Your task to perform on an android device: check android version Image 0: 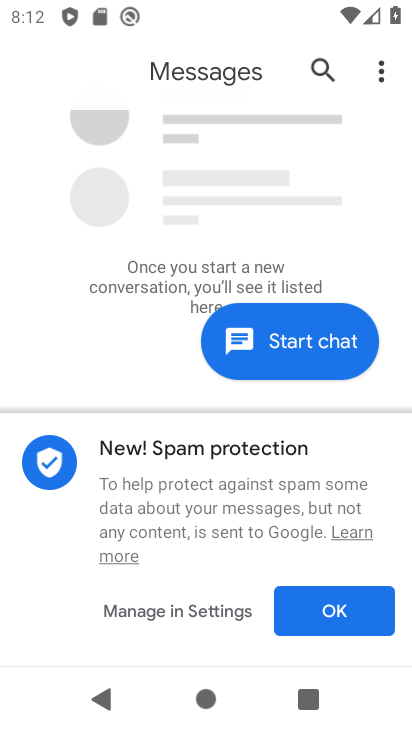
Step 0: press home button
Your task to perform on an android device: check android version Image 1: 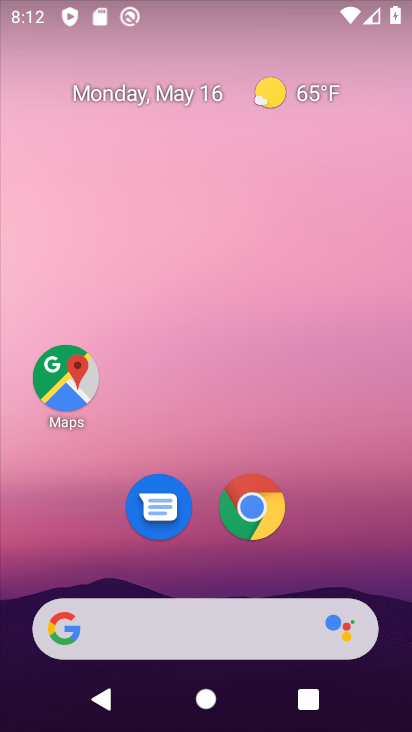
Step 1: drag from (214, 588) to (343, 1)
Your task to perform on an android device: check android version Image 2: 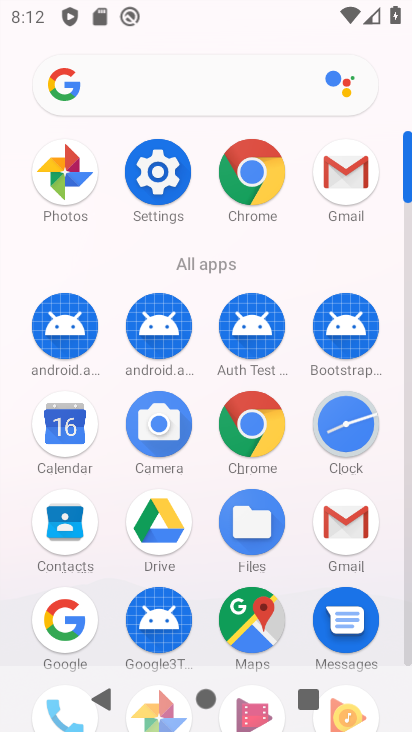
Step 2: click (159, 171)
Your task to perform on an android device: check android version Image 3: 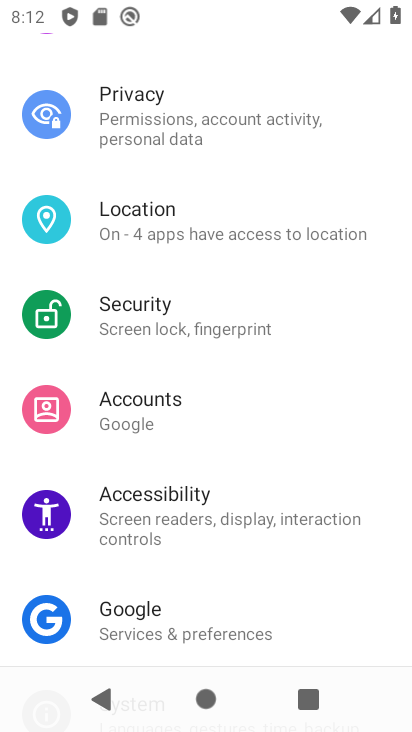
Step 3: drag from (186, 564) to (146, 112)
Your task to perform on an android device: check android version Image 4: 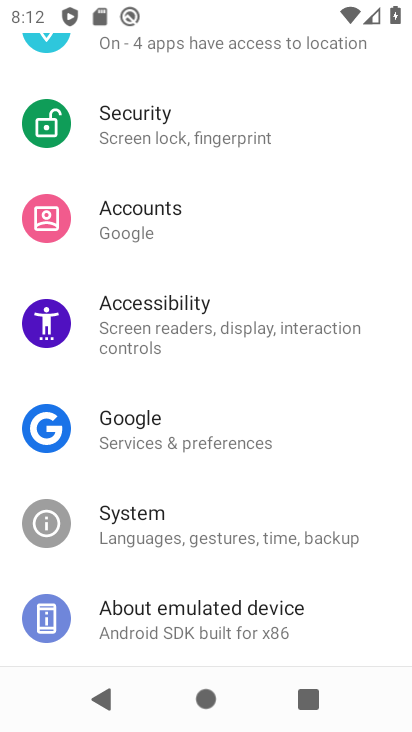
Step 4: click (117, 630)
Your task to perform on an android device: check android version Image 5: 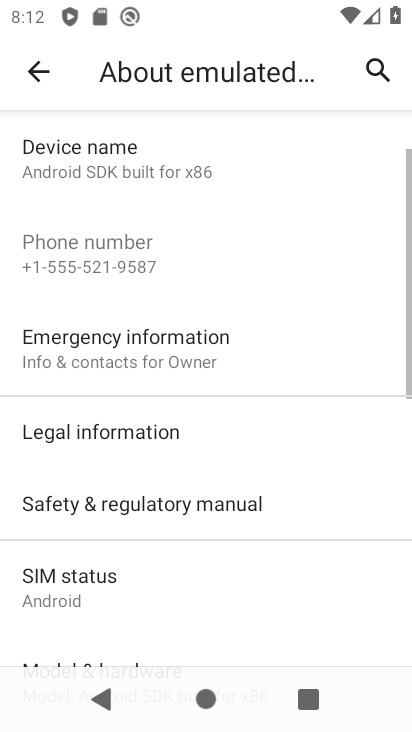
Step 5: drag from (183, 586) to (124, 157)
Your task to perform on an android device: check android version Image 6: 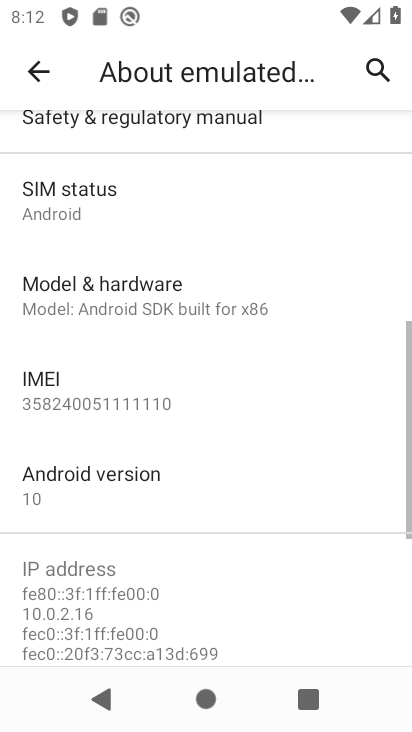
Step 6: click (82, 460)
Your task to perform on an android device: check android version Image 7: 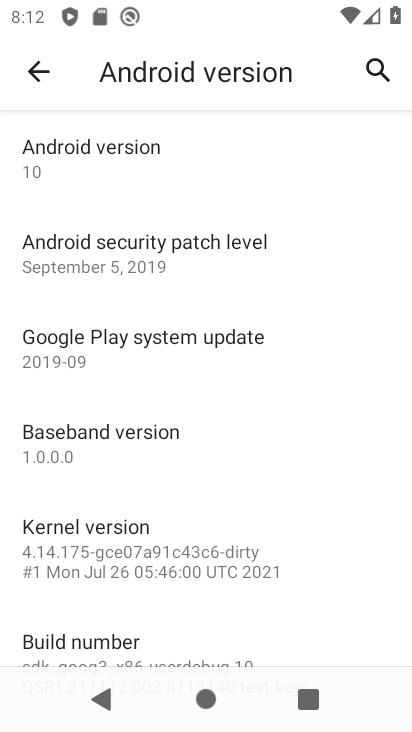
Step 7: click (87, 195)
Your task to perform on an android device: check android version Image 8: 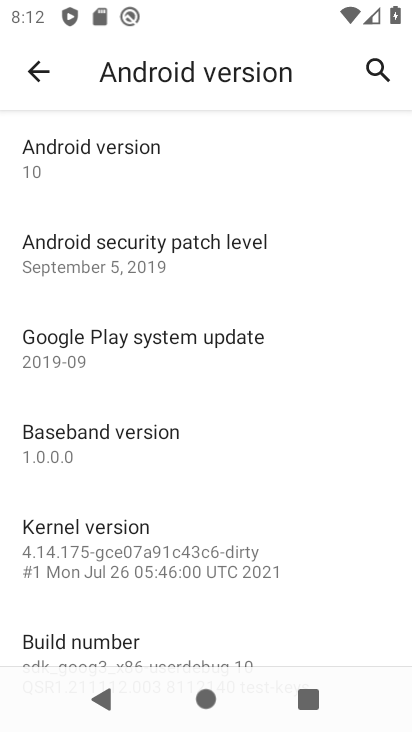
Step 8: task complete